Your task to perform on an android device: change text size in settings app Image 0: 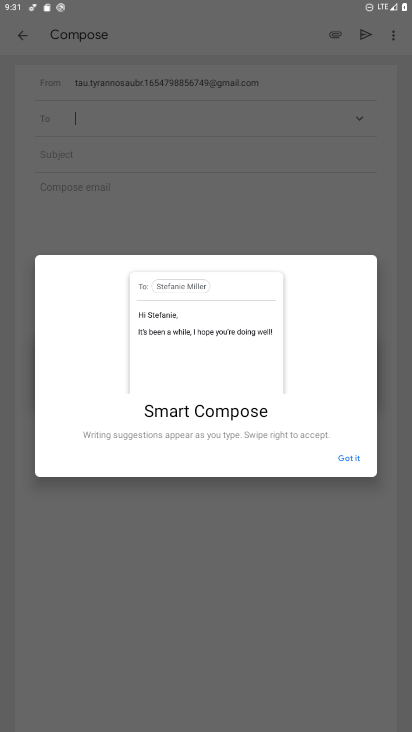
Step 0: press home button
Your task to perform on an android device: change text size in settings app Image 1: 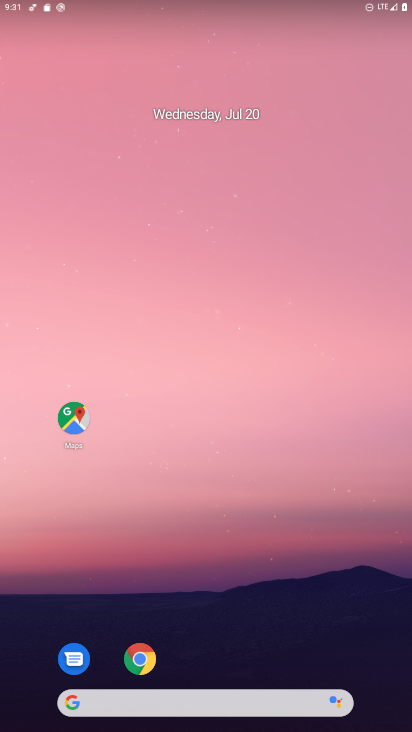
Step 1: drag from (273, 619) to (272, 5)
Your task to perform on an android device: change text size in settings app Image 2: 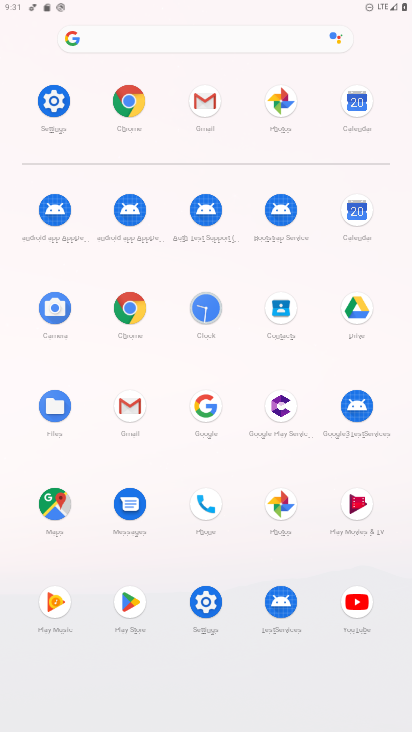
Step 2: click (46, 109)
Your task to perform on an android device: change text size in settings app Image 3: 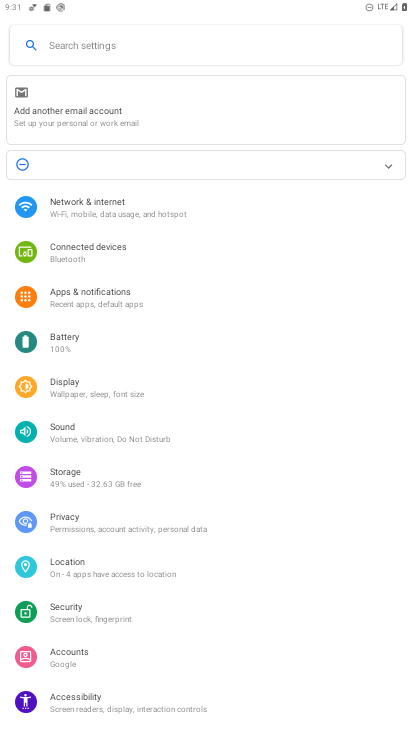
Step 3: click (90, 392)
Your task to perform on an android device: change text size in settings app Image 4: 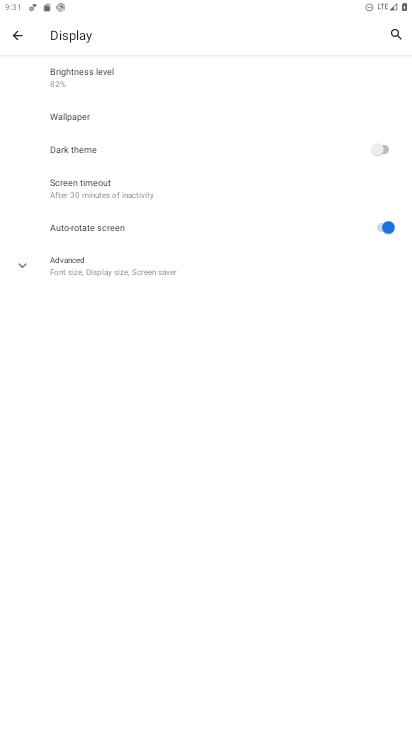
Step 4: click (121, 261)
Your task to perform on an android device: change text size in settings app Image 5: 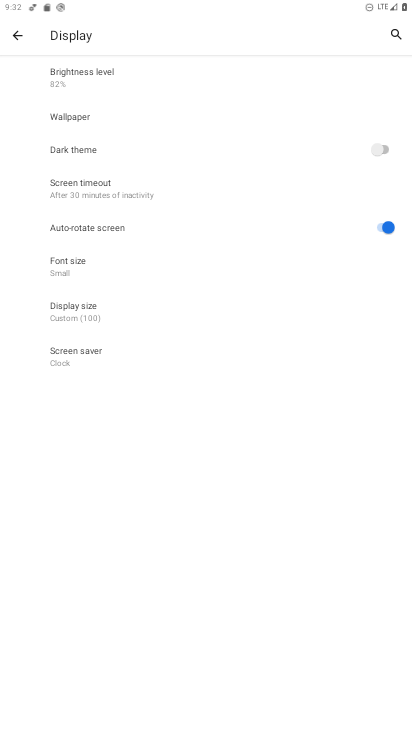
Step 5: click (83, 273)
Your task to perform on an android device: change text size in settings app Image 6: 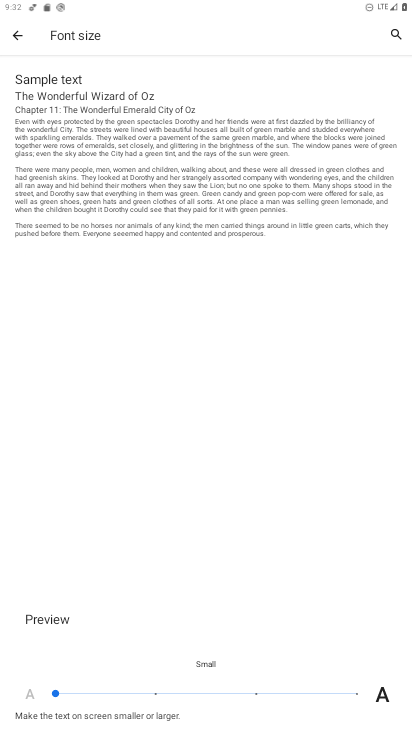
Step 6: click (133, 678)
Your task to perform on an android device: change text size in settings app Image 7: 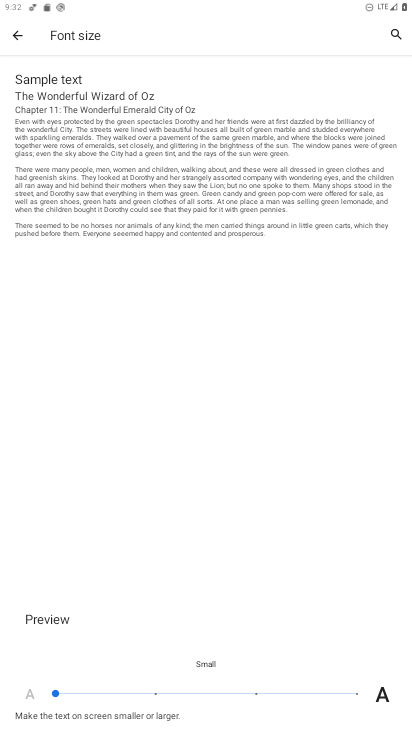
Step 7: click (135, 687)
Your task to perform on an android device: change text size in settings app Image 8: 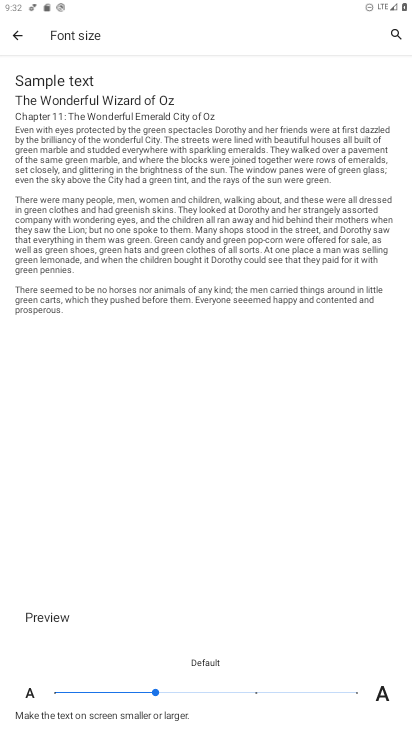
Step 8: task complete